Your task to perform on an android device: Open calendar and show me the fourth week of next month Image 0: 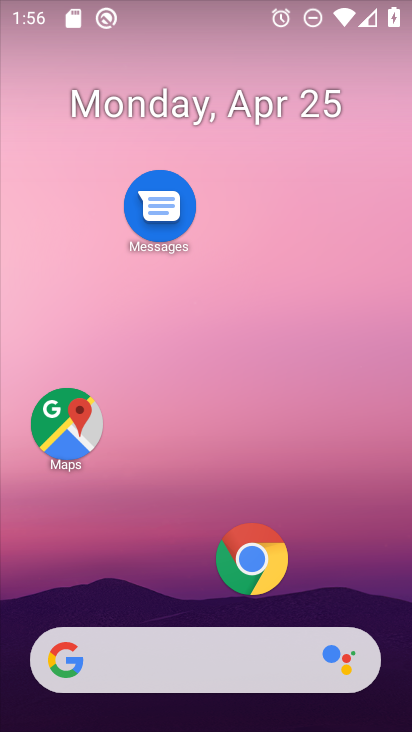
Step 0: drag from (159, 525) to (200, 117)
Your task to perform on an android device: Open calendar and show me the fourth week of next month Image 1: 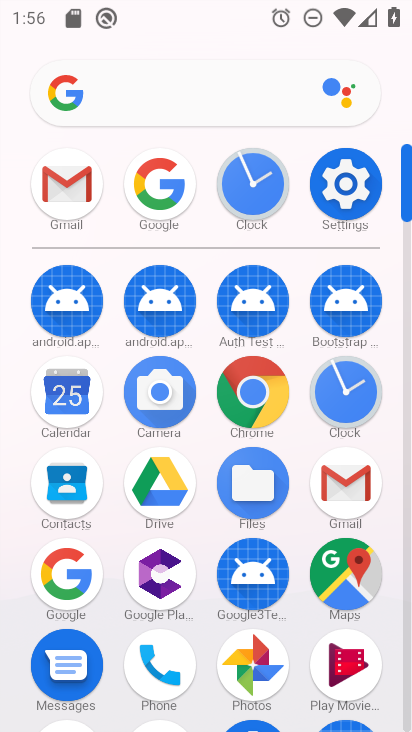
Step 1: click (66, 391)
Your task to perform on an android device: Open calendar and show me the fourth week of next month Image 2: 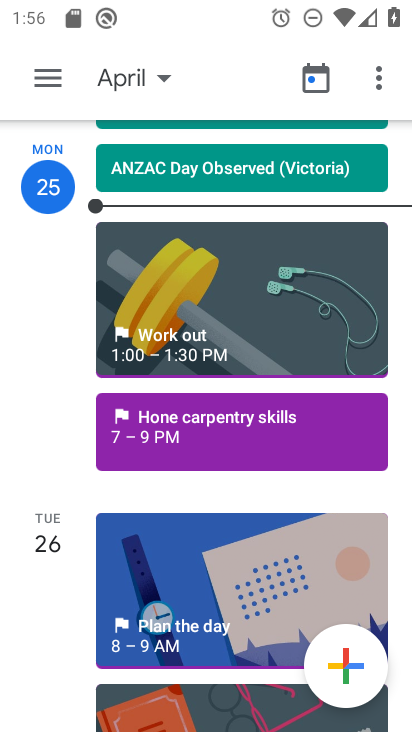
Step 2: click (147, 76)
Your task to perform on an android device: Open calendar and show me the fourth week of next month Image 3: 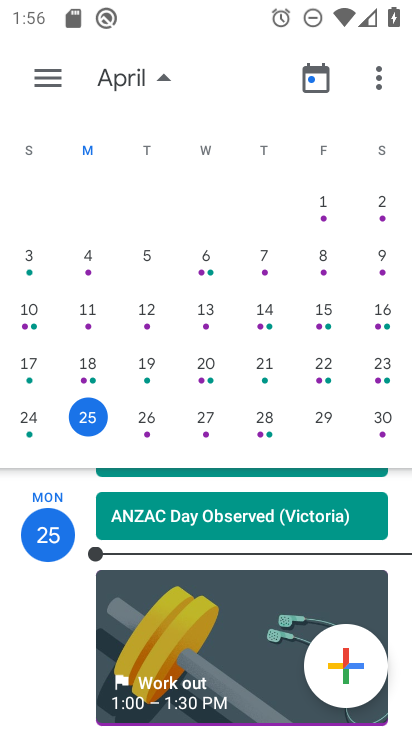
Step 3: drag from (341, 444) to (3, 437)
Your task to perform on an android device: Open calendar and show me the fourth week of next month Image 4: 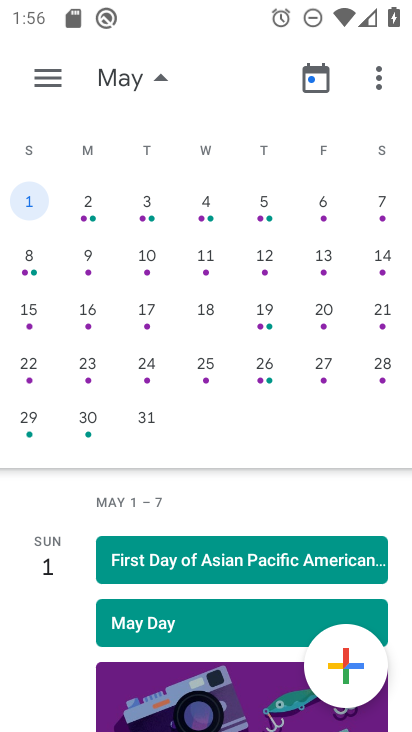
Step 4: click (206, 361)
Your task to perform on an android device: Open calendar and show me the fourth week of next month Image 5: 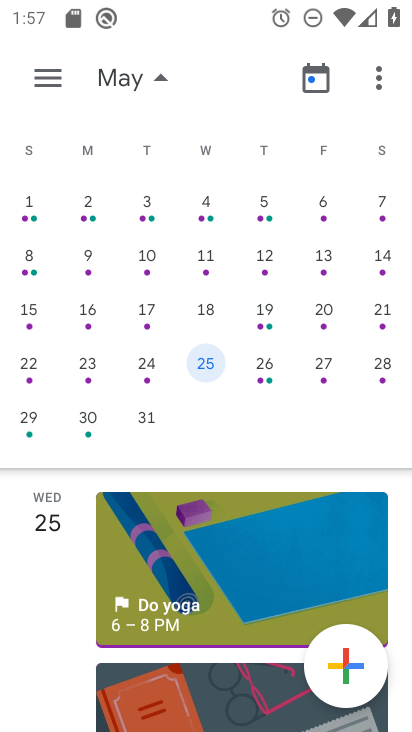
Step 5: task complete